Your task to perform on an android device: stop showing notifications on the lock screen Image 0: 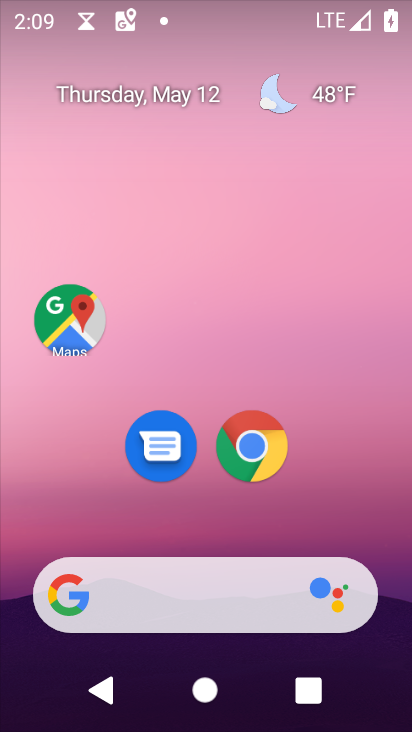
Step 0: drag from (300, 522) to (288, 71)
Your task to perform on an android device: stop showing notifications on the lock screen Image 1: 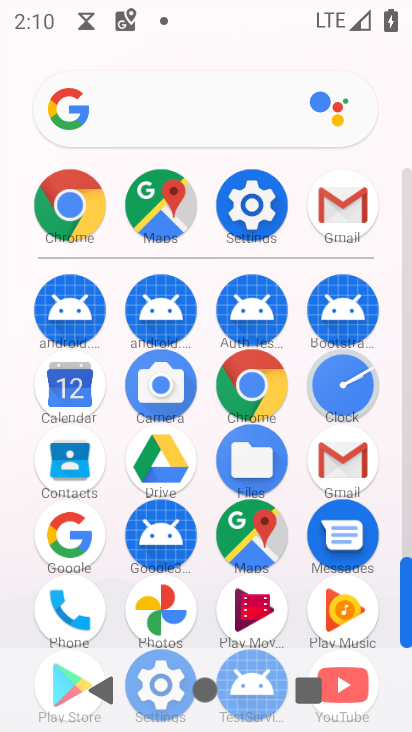
Step 1: click (261, 217)
Your task to perform on an android device: stop showing notifications on the lock screen Image 2: 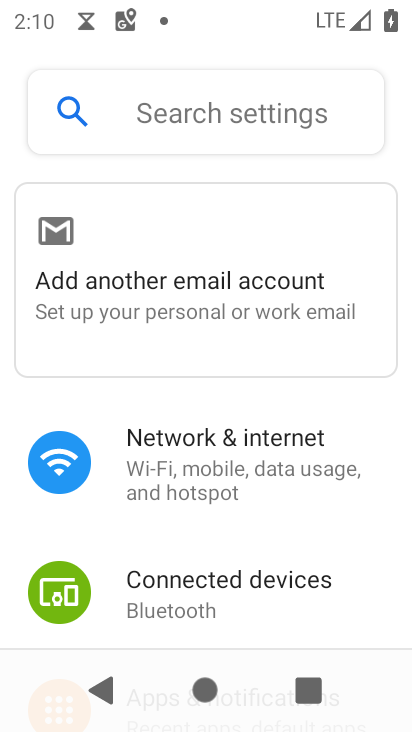
Step 2: drag from (277, 608) to (280, 397)
Your task to perform on an android device: stop showing notifications on the lock screen Image 3: 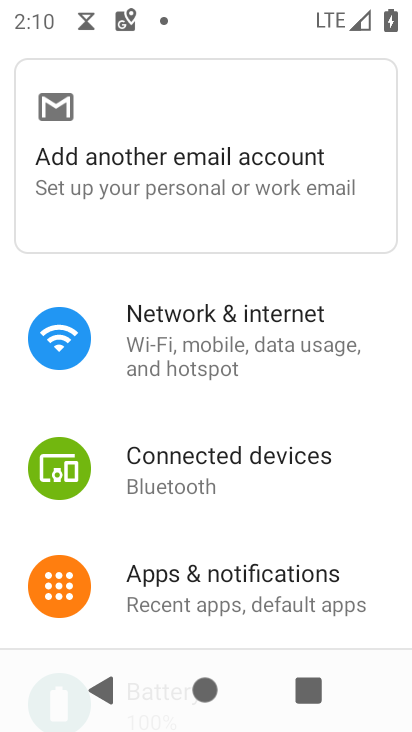
Step 3: drag from (324, 517) to (305, 236)
Your task to perform on an android device: stop showing notifications on the lock screen Image 4: 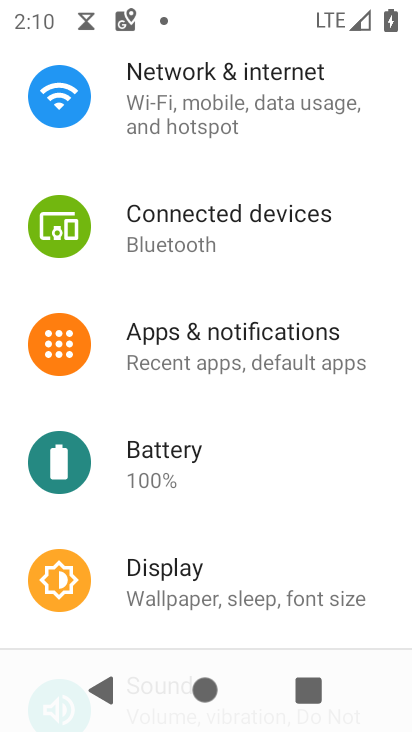
Step 4: click (247, 369)
Your task to perform on an android device: stop showing notifications on the lock screen Image 5: 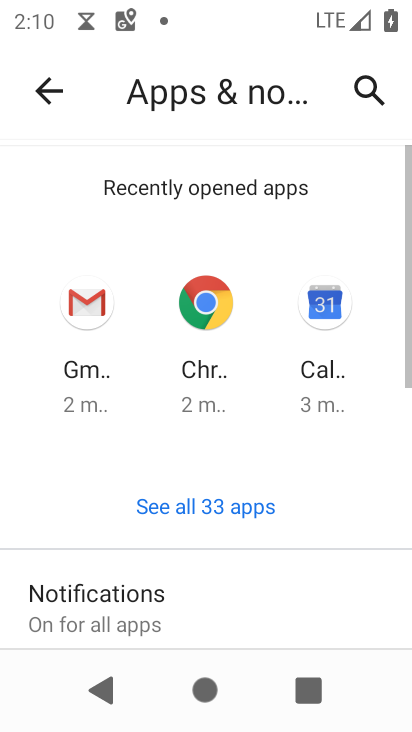
Step 5: drag from (257, 587) to (257, 388)
Your task to perform on an android device: stop showing notifications on the lock screen Image 6: 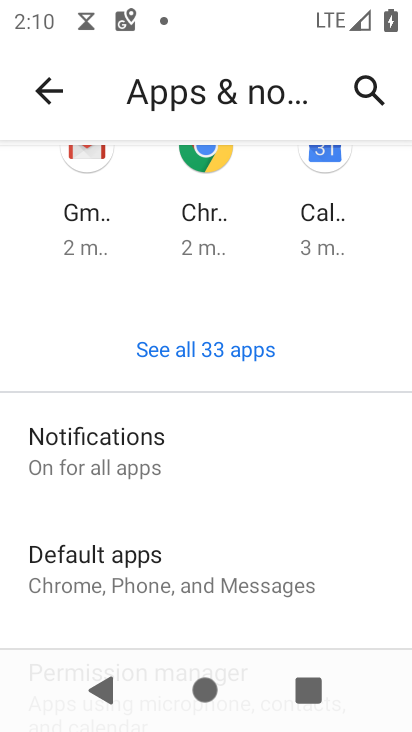
Step 6: click (169, 456)
Your task to perform on an android device: stop showing notifications on the lock screen Image 7: 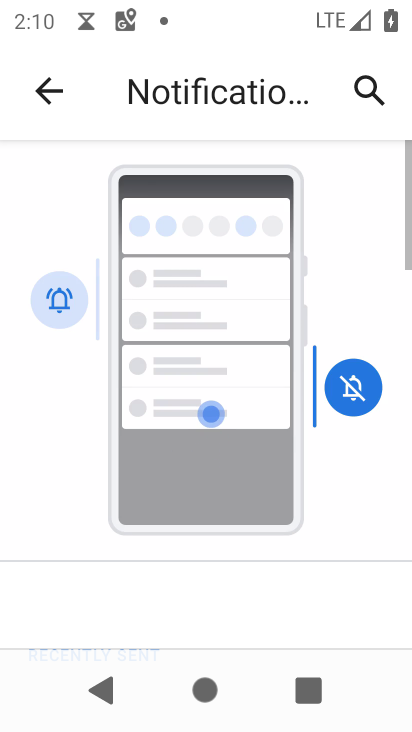
Step 7: drag from (280, 562) to (289, 253)
Your task to perform on an android device: stop showing notifications on the lock screen Image 8: 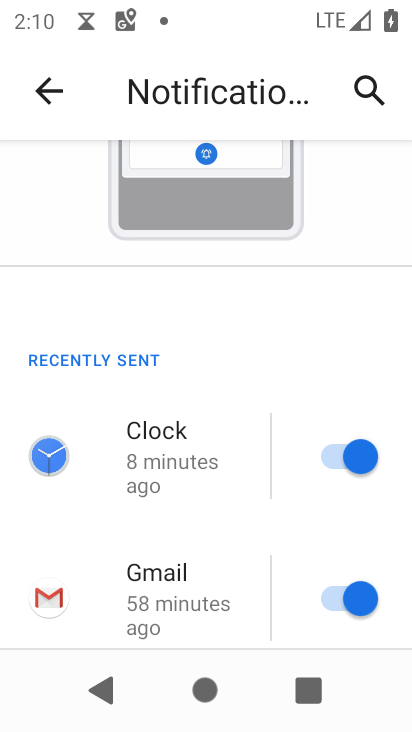
Step 8: drag from (262, 542) to (295, 222)
Your task to perform on an android device: stop showing notifications on the lock screen Image 9: 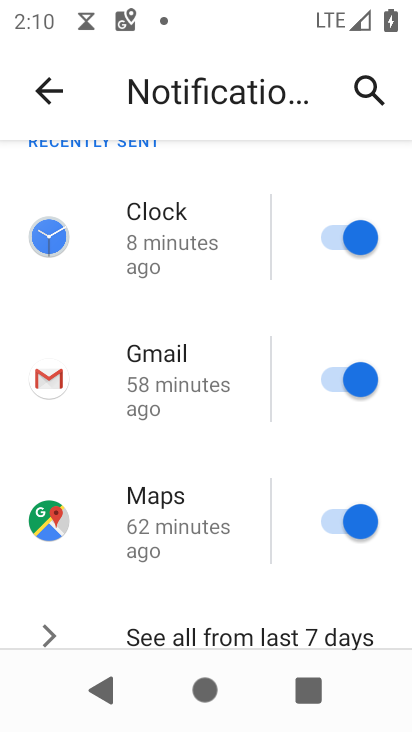
Step 9: drag from (260, 550) to (262, 256)
Your task to perform on an android device: stop showing notifications on the lock screen Image 10: 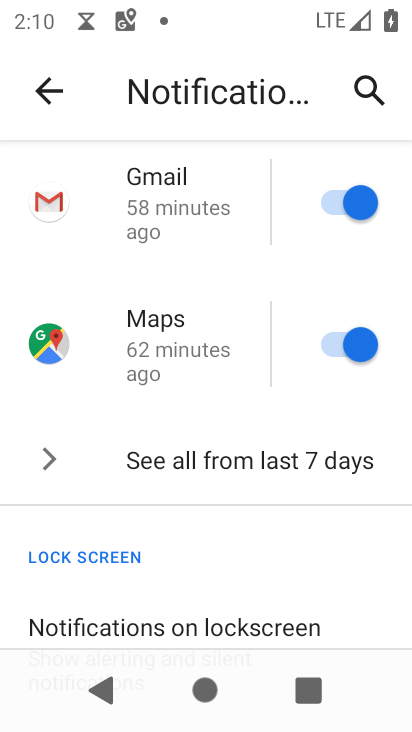
Step 10: drag from (255, 581) to (282, 264)
Your task to perform on an android device: stop showing notifications on the lock screen Image 11: 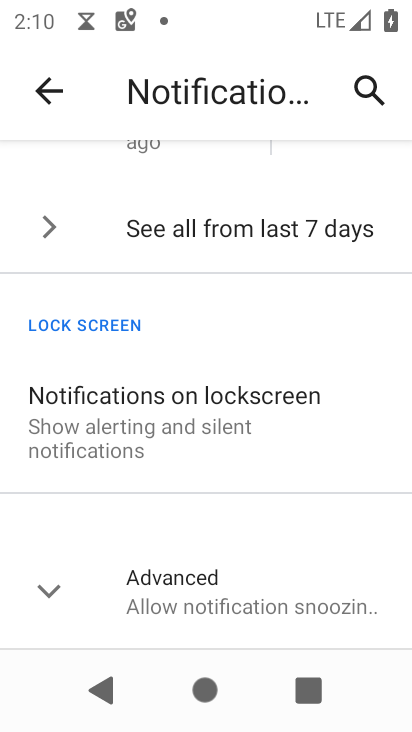
Step 11: click (285, 596)
Your task to perform on an android device: stop showing notifications on the lock screen Image 12: 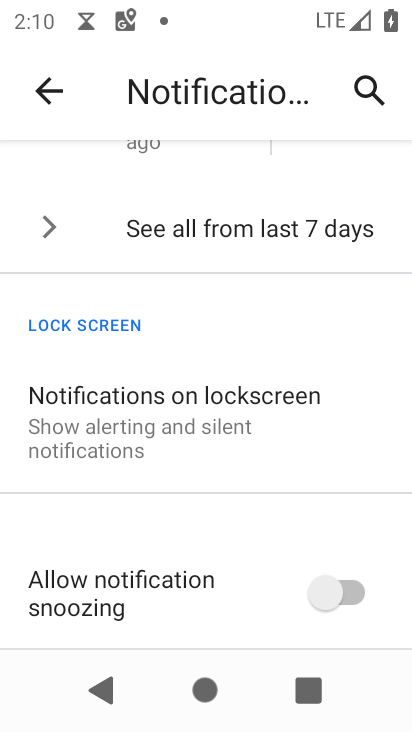
Step 12: click (232, 411)
Your task to perform on an android device: stop showing notifications on the lock screen Image 13: 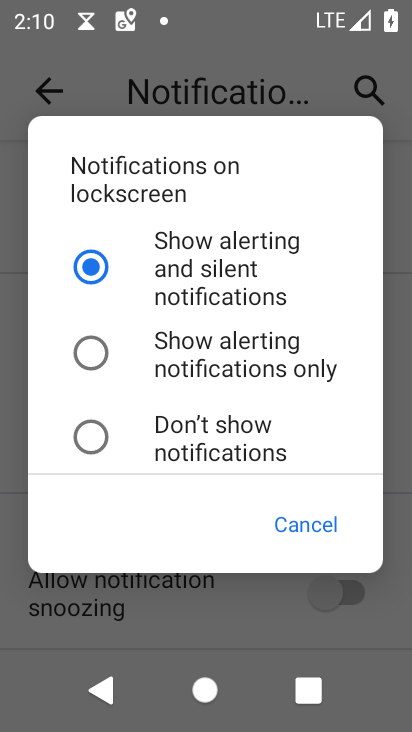
Step 13: click (88, 436)
Your task to perform on an android device: stop showing notifications on the lock screen Image 14: 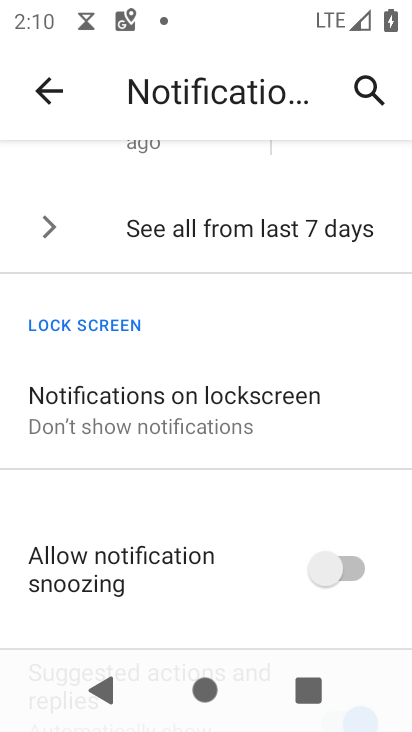
Step 14: task complete